Your task to perform on an android device: turn off sleep mode Image 0: 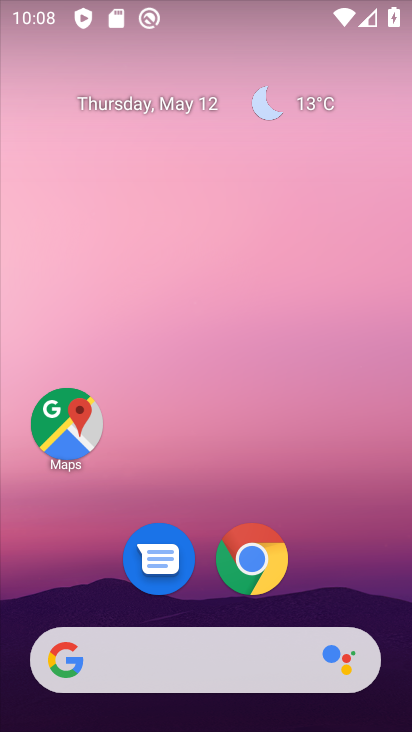
Step 0: drag from (200, 590) to (290, 2)
Your task to perform on an android device: turn off sleep mode Image 1: 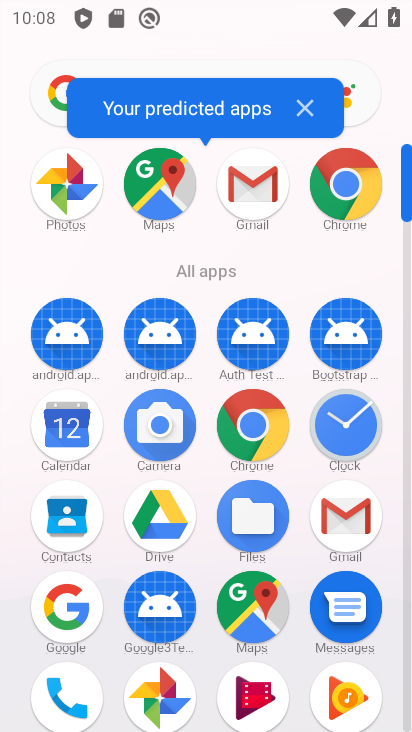
Step 1: drag from (190, 459) to (269, 129)
Your task to perform on an android device: turn off sleep mode Image 2: 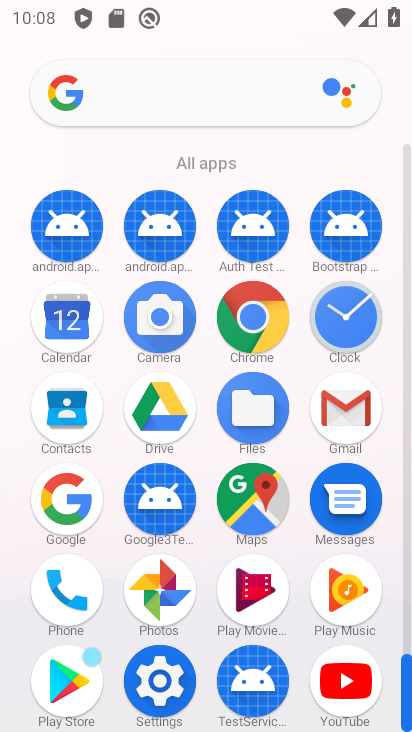
Step 2: click (161, 679)
Your task to perform on an android device: turn off sleep mode Image 3: 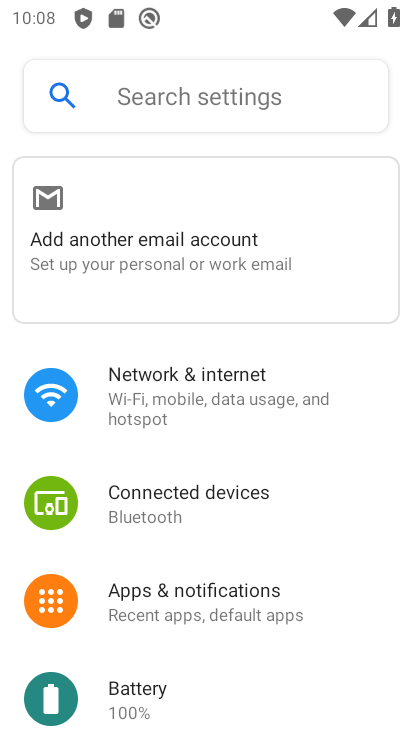
Step 3: click (217, 111)
Your task to perform on an android device: turn off sleep mode Image 4: 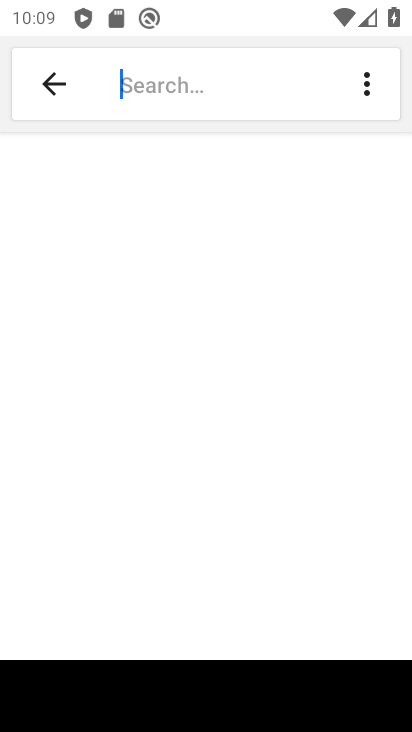
Step 4: type "sleep mode"
Your task to perform on an android device: turn off sleep mode Image 5: 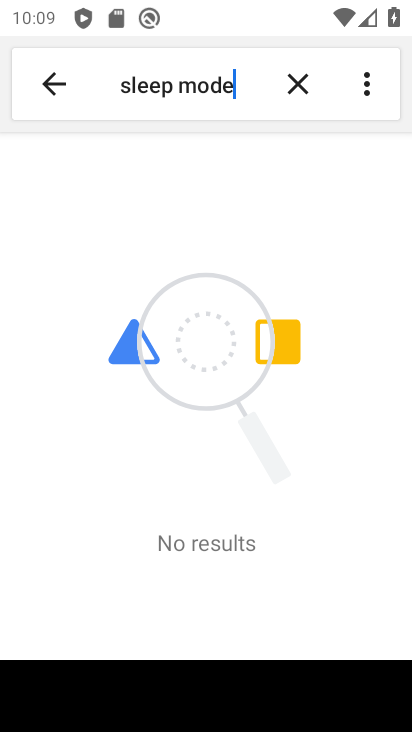
Step 5: task complete